Your task to perform on an android device: turn pop-ups on in chrome Image 0: 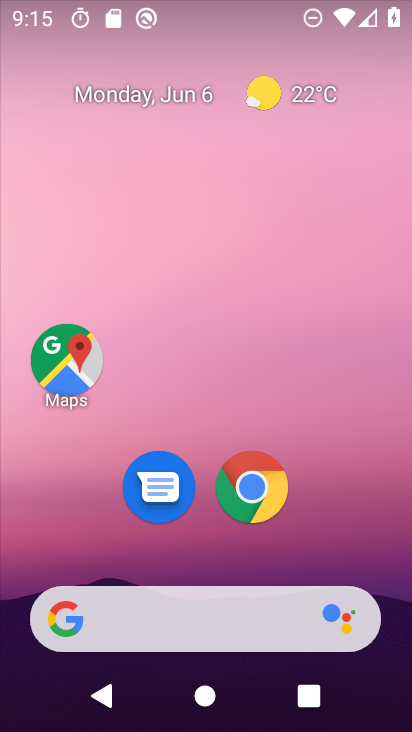
Step 0: drag from (401, 613) to (197, 4)
Your task to perform on an android device: turn pop-ups on in chrome Image 1: 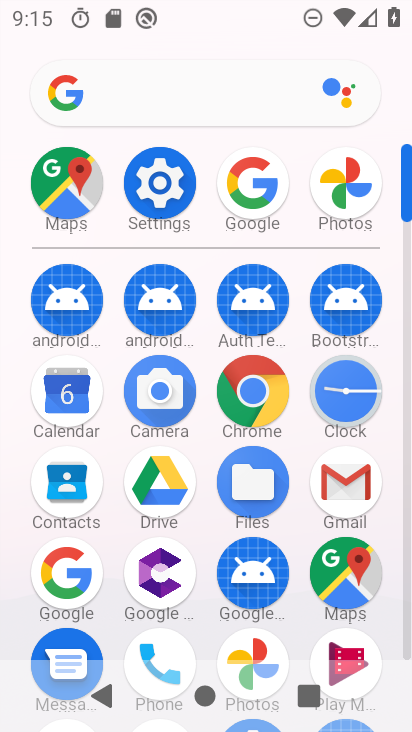
Step 1: click (256, 383)
Your task to perform on an android device: turn pop-ups on in chrome Image 2: 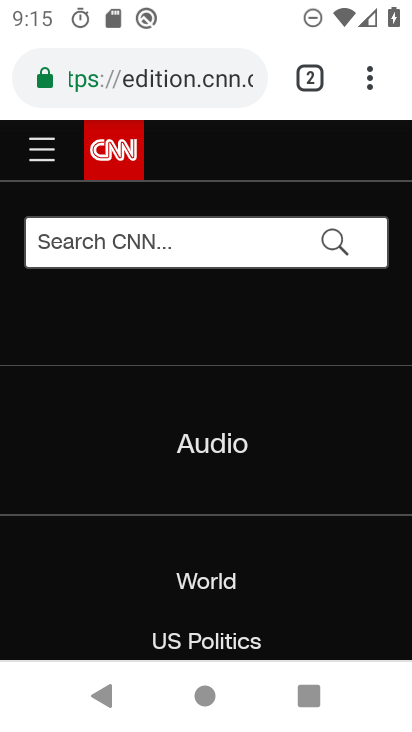
Step 2: press back button
Your task to perform on an android device: turn pop-ups on in chrome Image 3: 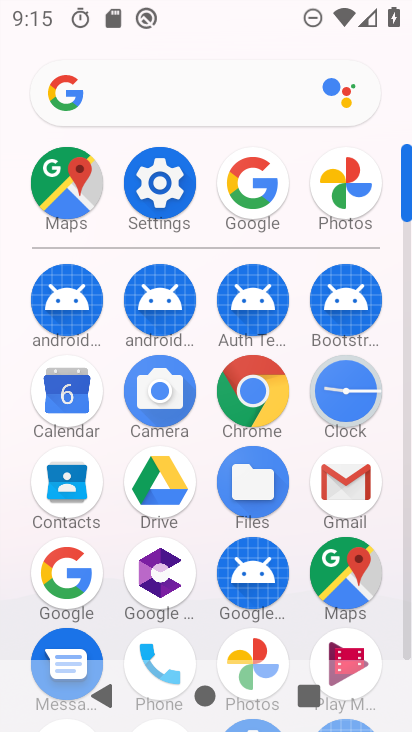
Step 3: click (253, 382)
Your task to perform on an android device: turn pop-ups on in chrome Image 4: 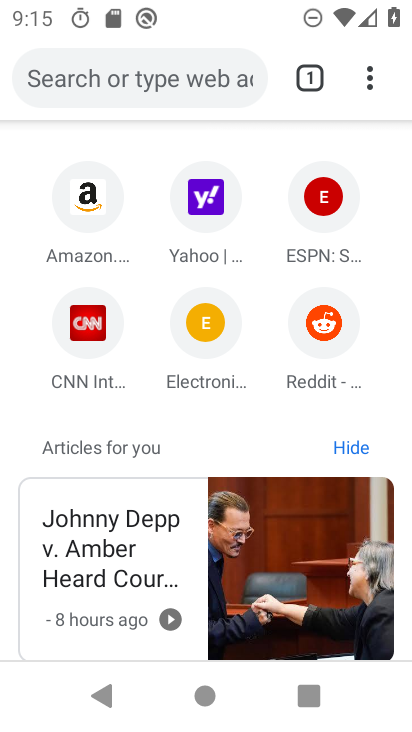
Step 4: click (373, 73)
Your task to perform on an android device: turn pop-ups on in chrome Image 5: 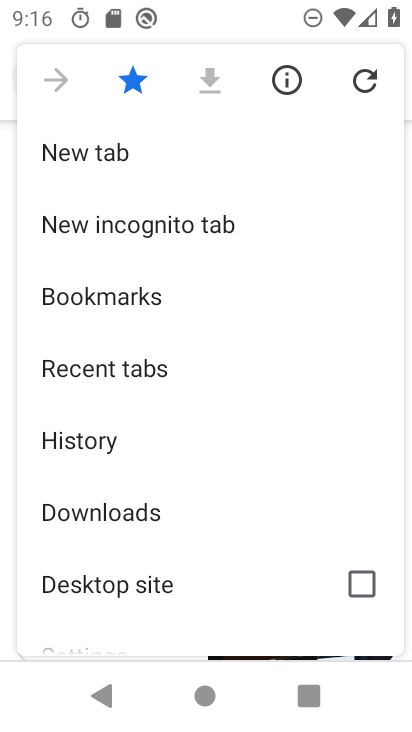
Step 5: drag from (139, 620) to (187, 197)
Your task to perform on an android device: turn pop-ups on in chrome Image 6: 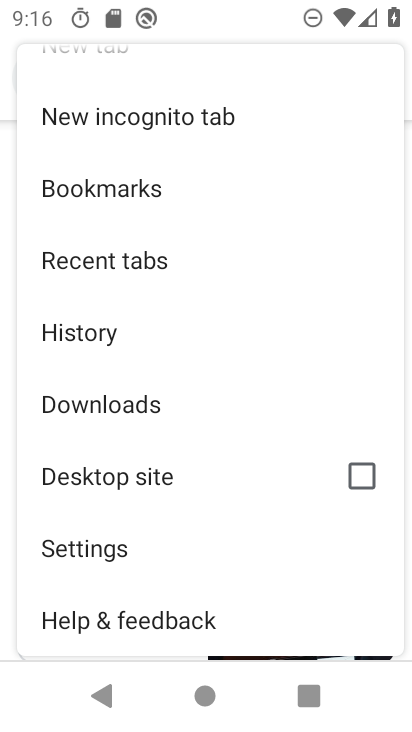
Step 6: click (106, 563)
Your task to perform on an android device: turn pop-ups on in chrome Image 7: 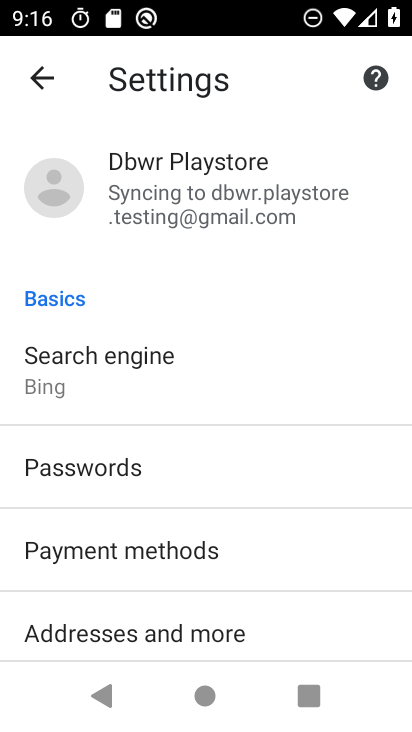
Step 7: drag from (110, 622) to (200, 158)
Your task to perform on an android device: turn pop-ups on in chrome Image 8: 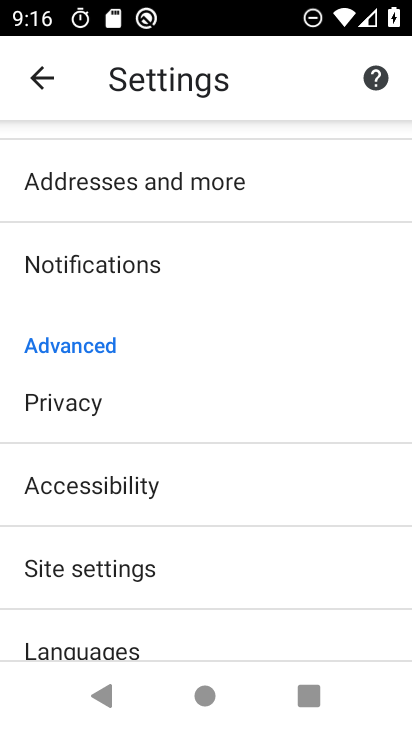
Step 8: click (158, 563)
Your task to perform on an android device: turn pop-ups on in chrome Image 9: 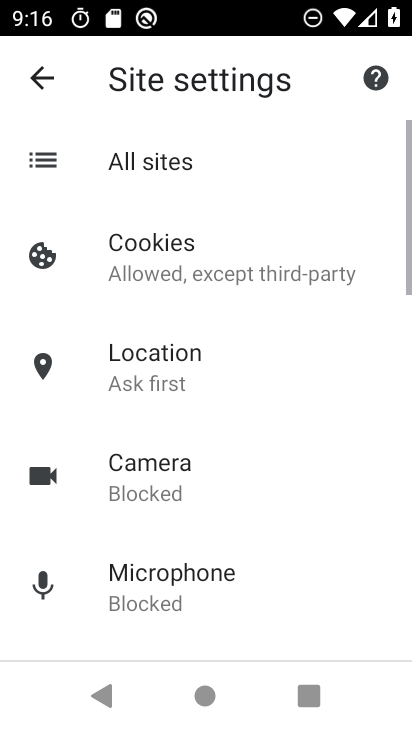
Step 9: drag from (202, 580) to (258, 191)
Your task to perform on an android device: turn pop-ups on in chrome Image 10: 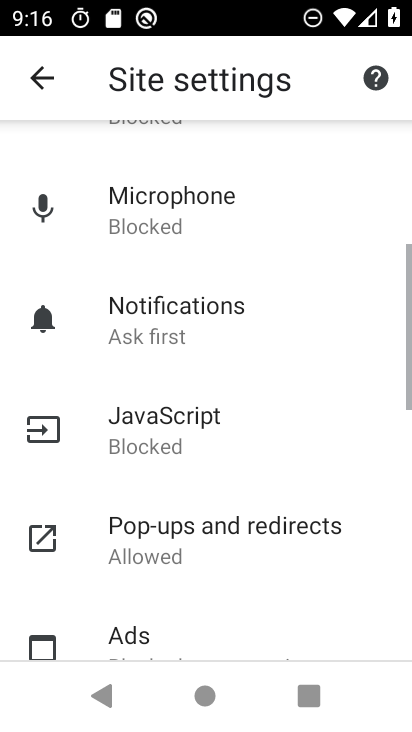
Step 10: click (238, 389)
Your task to perform on an android device: turn pop-ups on in chrome Image 11: 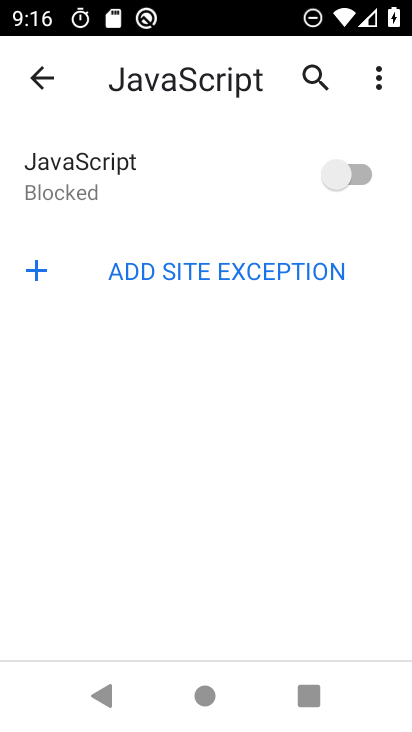
Step 11: press back button
Your task to perform on an android device: turn pop-ups on in chrome Image 12: 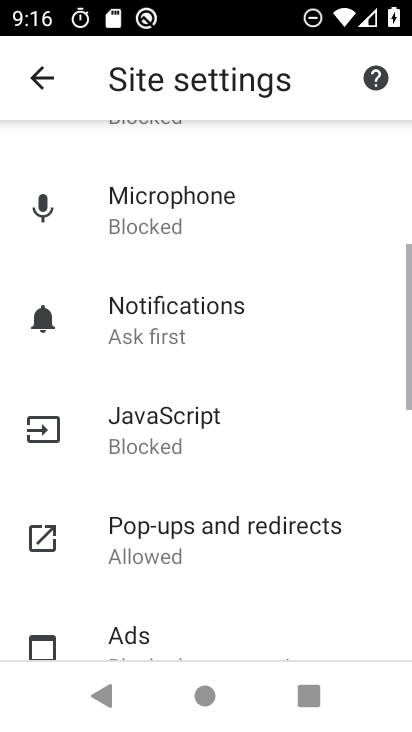
Step 12: click (232, 562)
Your task to perform on an android device: turn pop-ups on in chrome Image 13: 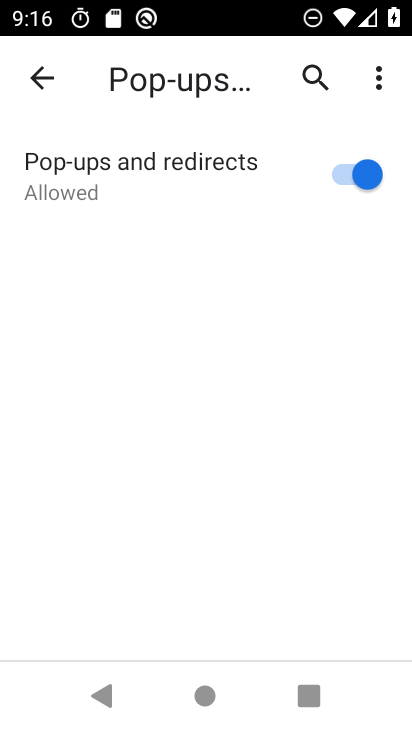
Step 13: task complete